Your task to perform on an android device: turn off location history Image 0: 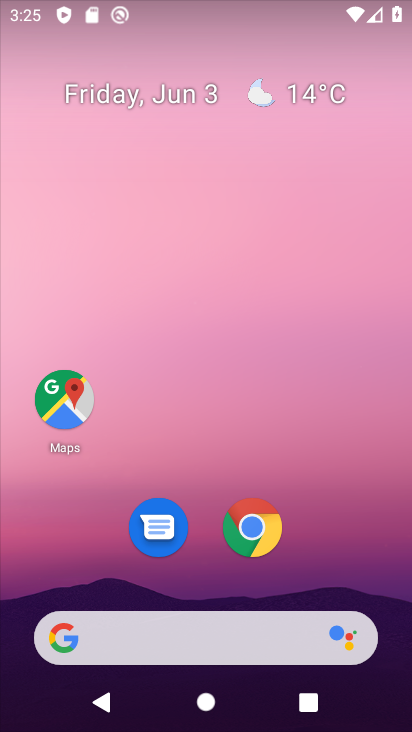
Step 0: drag from (355, 528) to (242, 12)
Your task to perform on an android device: turn off location history Image 1: 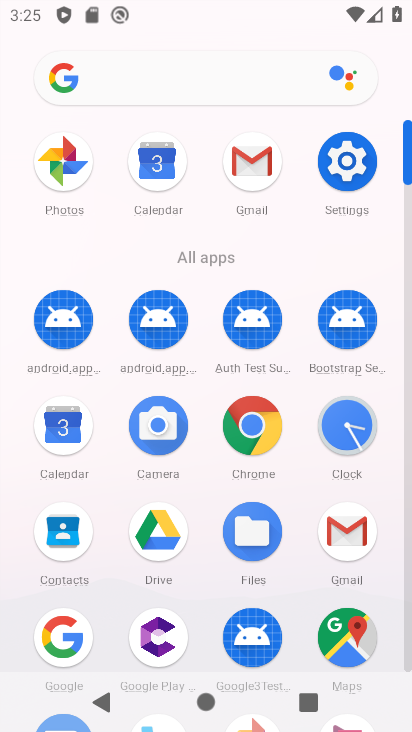
Step 1: click (346, 161)
Your task to perform on an android device: turn off location history Image 2: 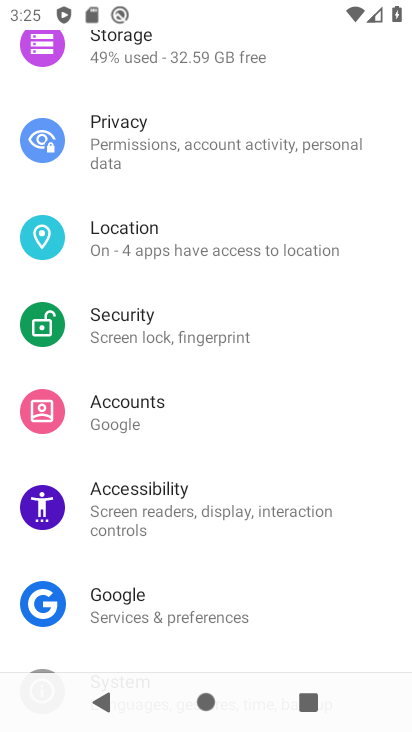
Step 2: click (185, 254)
Your task to perform on an android device: turn off location history Image 3: 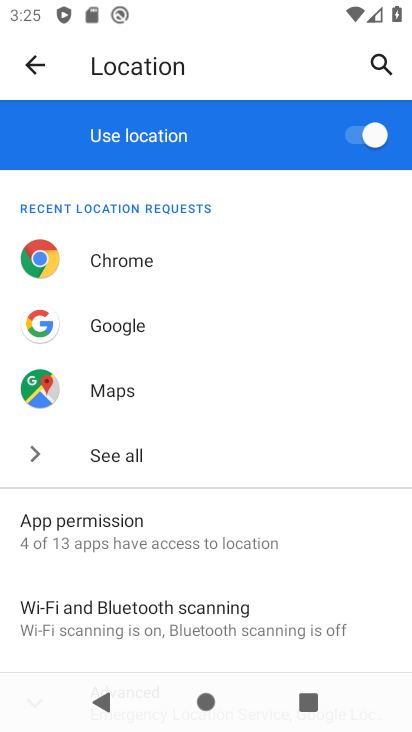
Step 3: drag from (157, 554) to (206, 279)
Your task to perform on an android device: turn off location history Image 4: 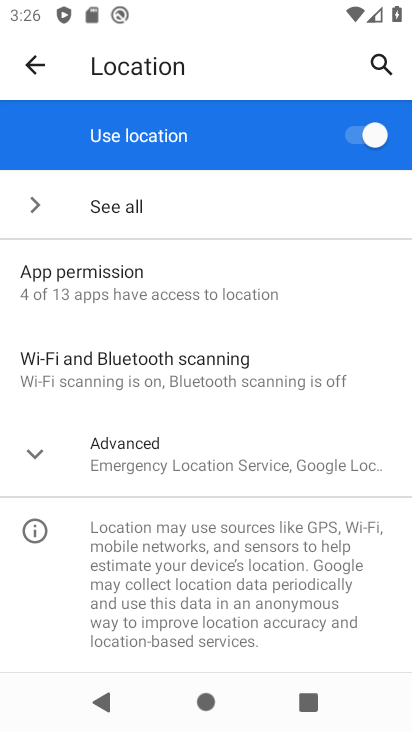
Step 4: click (207, 471)
Your task to perform on an android device: turn off location history Image 5: 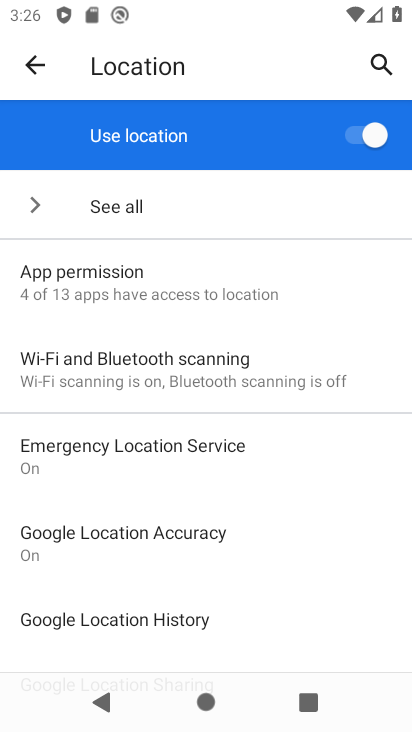
Step 5: click (147, 622)
Your task to perform on an android device: turn off location history Image 6: 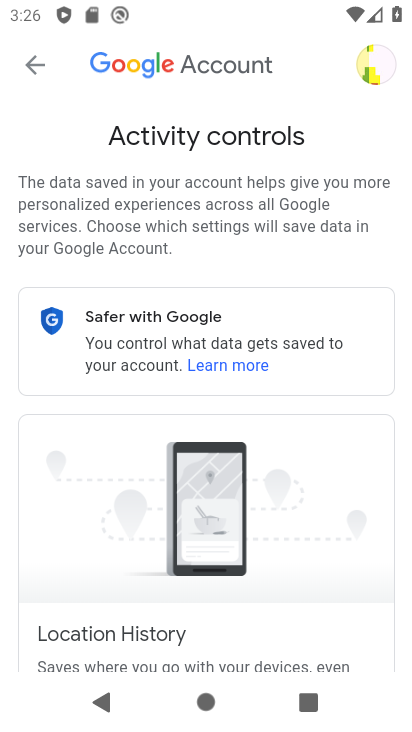
Step 6: task complete